Your task to perform on an android device: turn on showing notifications on the lock screen Image 0: 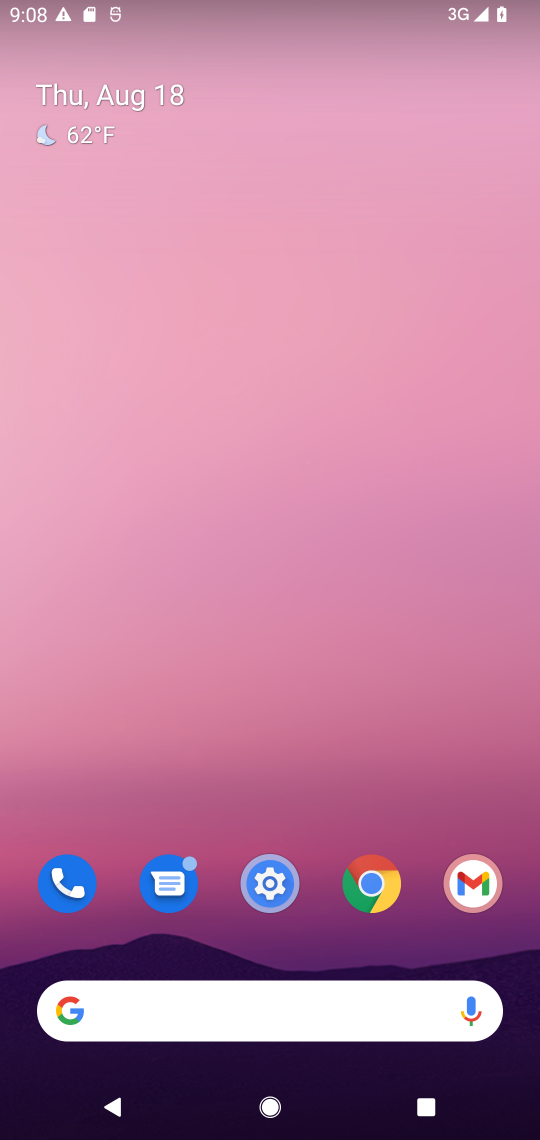
Step 0: click (278, 878)
Your task to perform on an android device: turn on showing notifications on the lock screen Image 1: 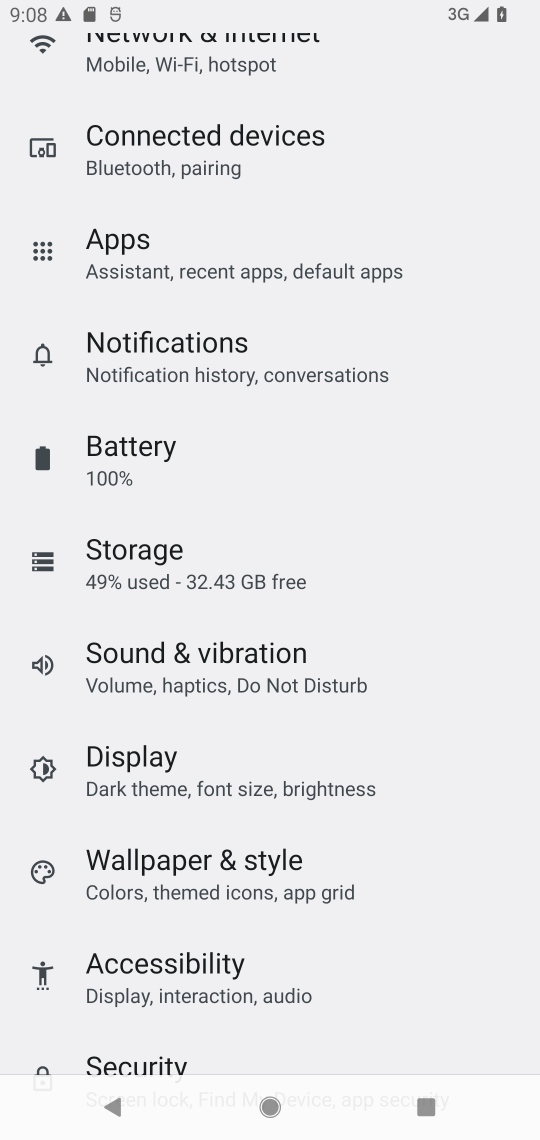
Step 1: click (236, 359)
Your task to perform on an android device: turn on showing notifications on the lock screen Image 2: 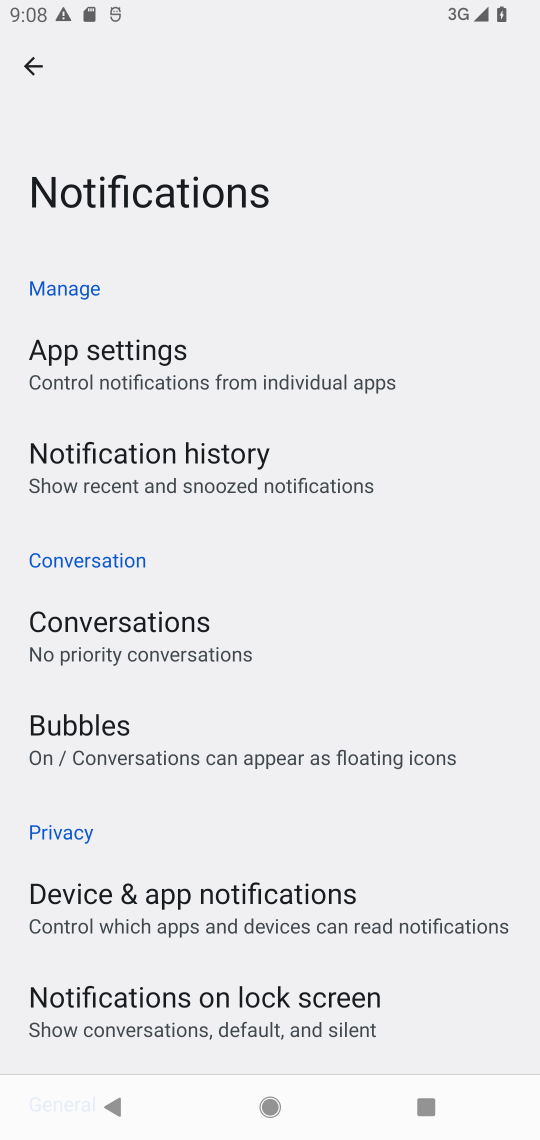
Step 2: click (221, 995)
Your task to perform on an android device: turn on showing notifications on the lock screen Image 3: 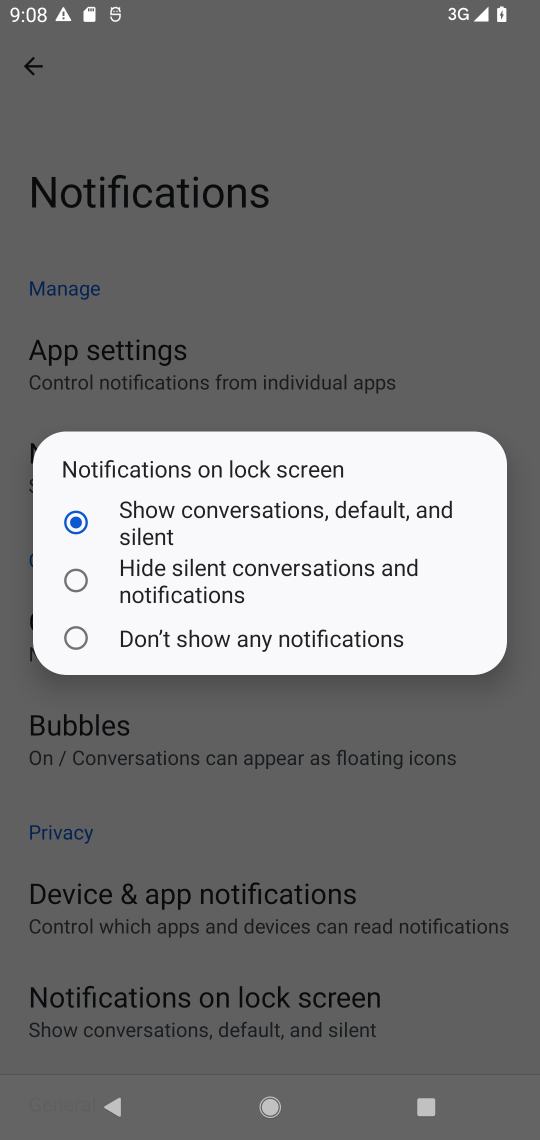
Step 3: task complete